Your task to perform on an android device: turn off picture-in-picture Image 0: 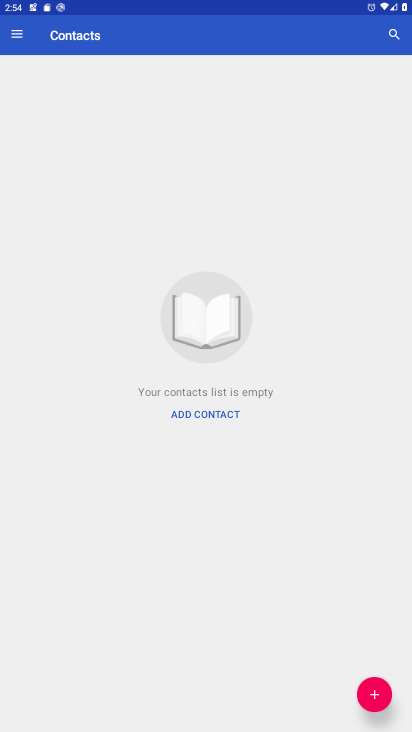
Step 0: click (210, 569)
Your task to perform on an android device: turn off picture-in-picture Image 1: 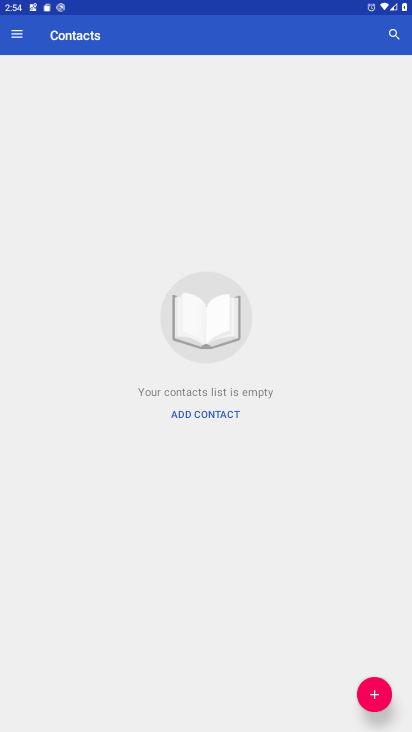
Step 1: click (283, 562)
Your task to perform on an android device: turn off picture-in-picture Image 2: 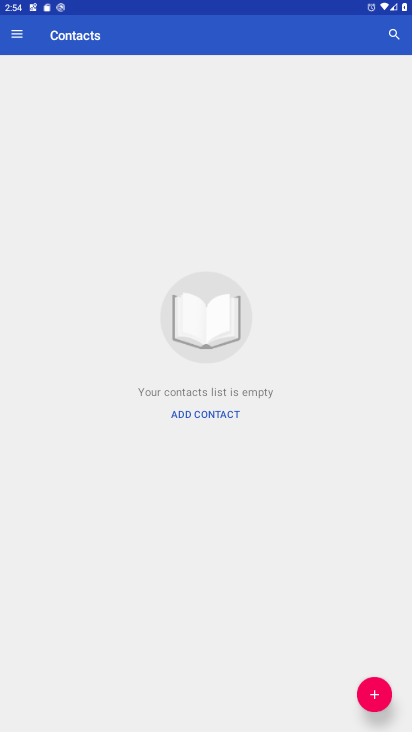
Step 2: press home button
Your task to perform on an android device: turn off picture-in-picture Image 3: 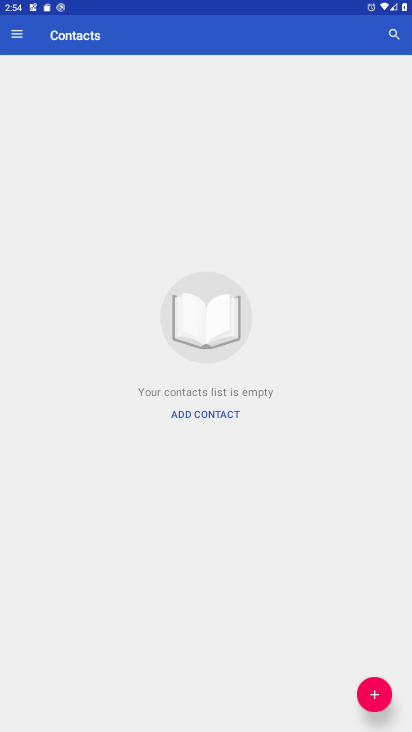
Step 3: press home button
Your task to perform on an android device: turn off picture-in-picture Image 4: 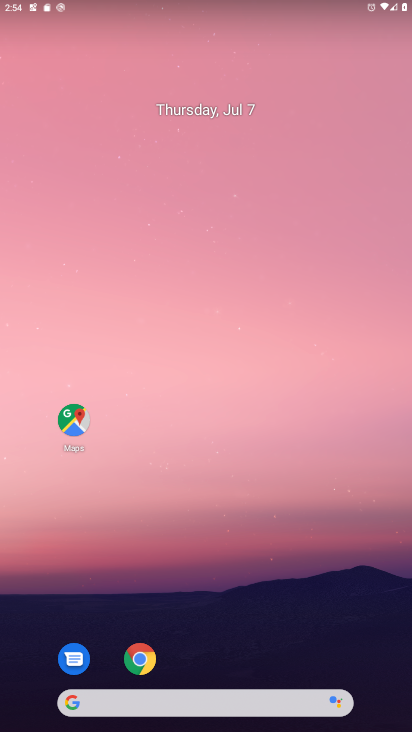
Step 4: drag from (174, 667) to (289, 157)
Your task to perform on an android device: turn off picture-in-picture Image 5: 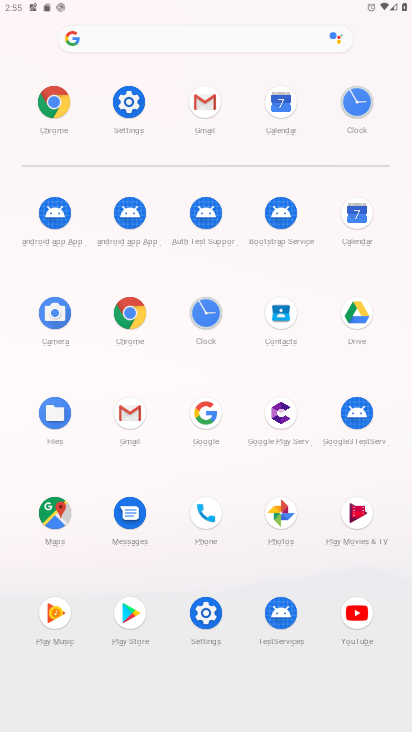
Step 5: click (131, 99)
Your task to perform on an android device: turn off picture-in-picture Image 6: 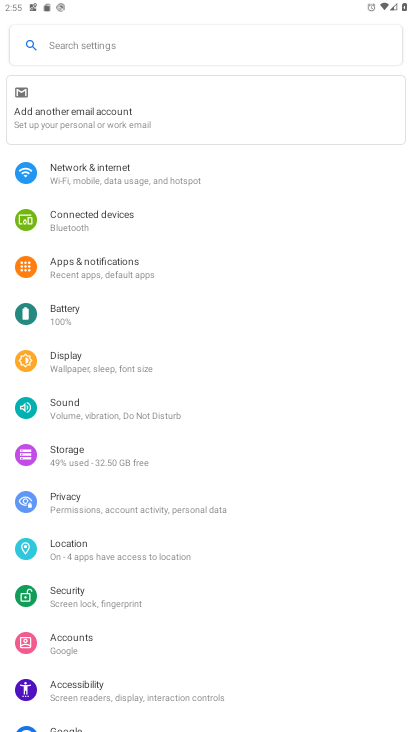
Step 6: drag from (194, 608) to (267, 224)
Your task to perform on an android device: turn off picture-in-picture Image 7: 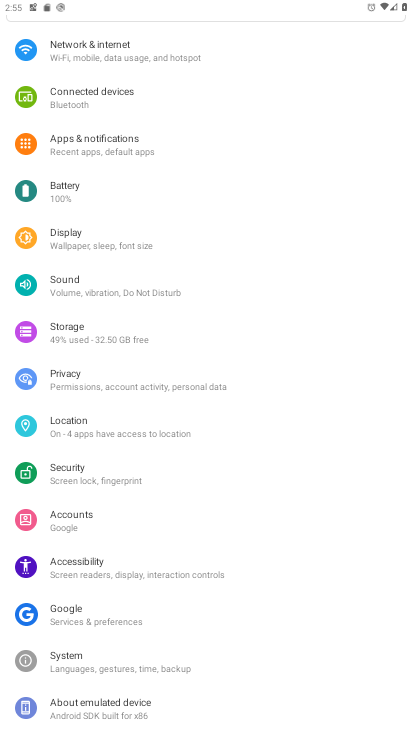
Step 7: drag from (130, 619) to (247, 183)
Your task to perform on an android device: turn off picture-in-picture Image 8: 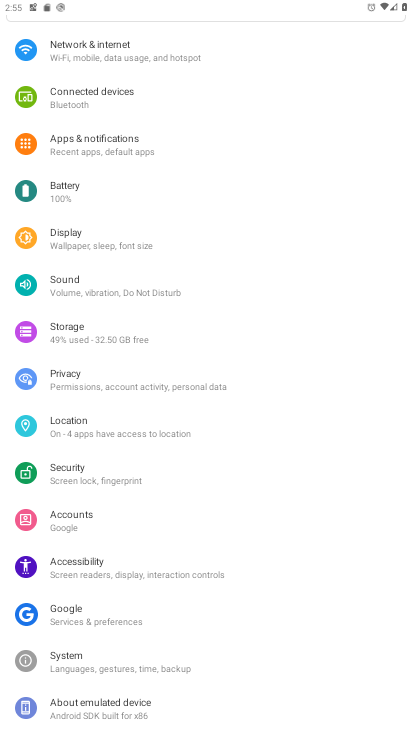
Step 8: drag from (115, 645) to (203, 258)
Your task to perform on an android device: turn off picture-in-picture Image 9: 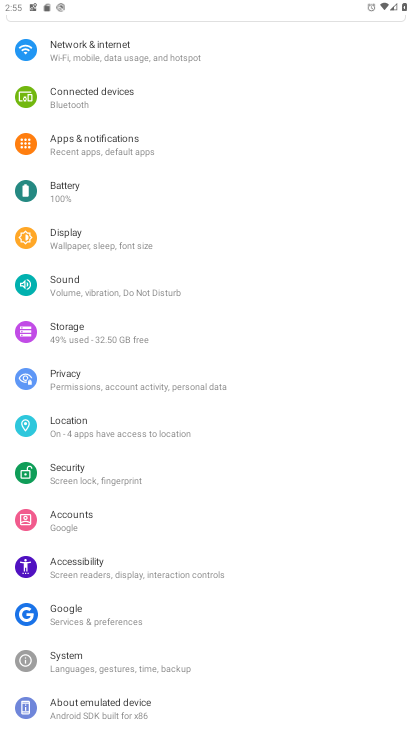
Step 9: drag from (141, 96) to (214, 725)
Your task to perform on an android device: turn off picture-in-picture Image 10: 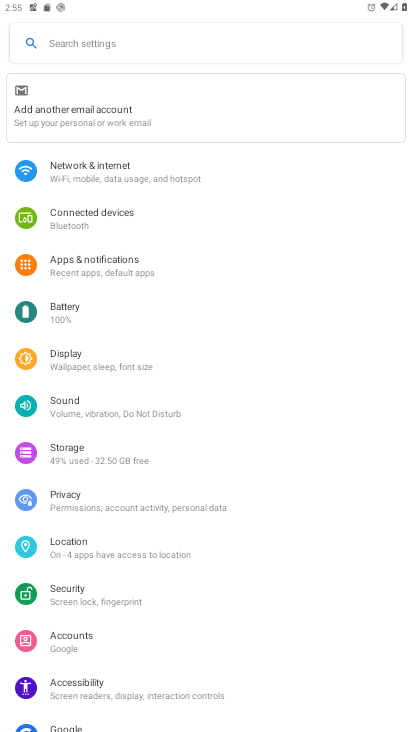
Step 10: click (125, 265)
Your task to perform on an android device: turn off picture-in-picture Image 11: 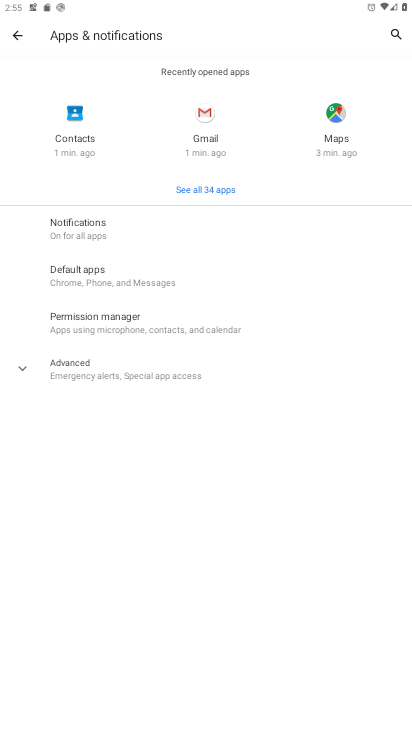
Step 11: click (95, 365)
Your task to perform on an android device: turn off picture-in-picture Image 12: 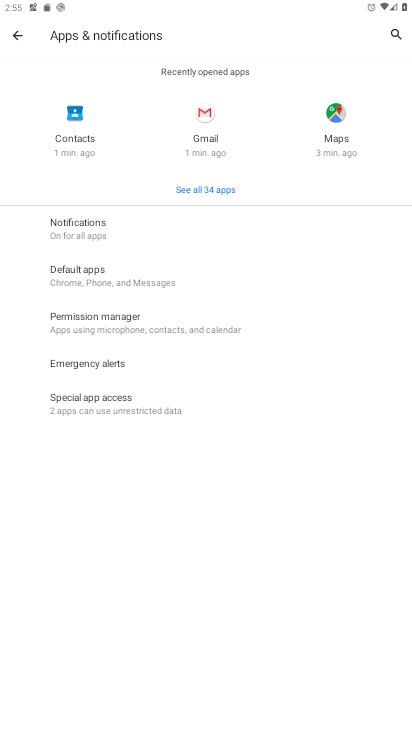
Step 12: click (129, 404)
Your task to perform on an android device: turn off picture-in-picture Image 13: 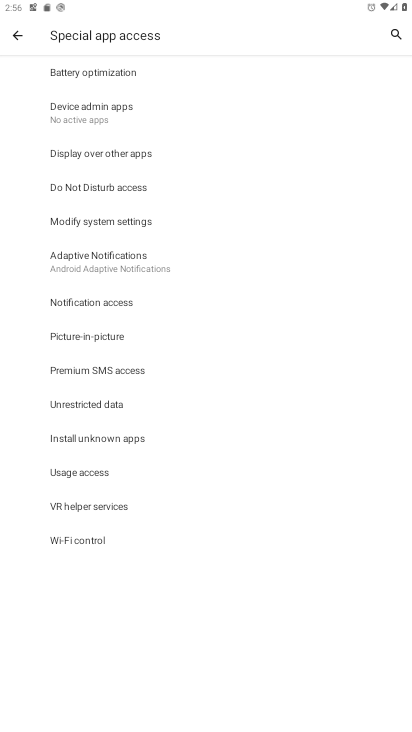
Step 13: click (115, 338)
Your task to perform on an android device: turn off picture-in-picture Image 14: 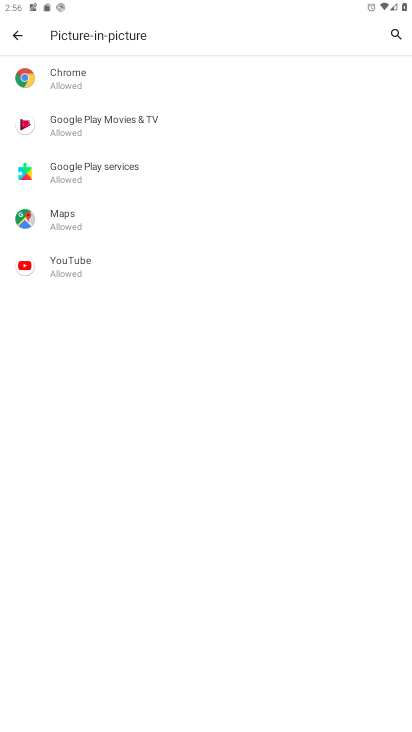
Step 14: task complete